Your task to perform on an android device: Go to settings Image 0: 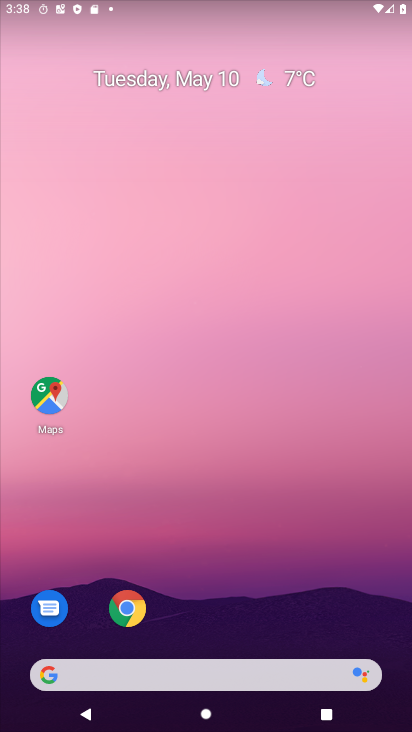
Step 0: drag from (294, 637) to (270, 34)
Your task to perform on an android device: Go to settings Image 1: 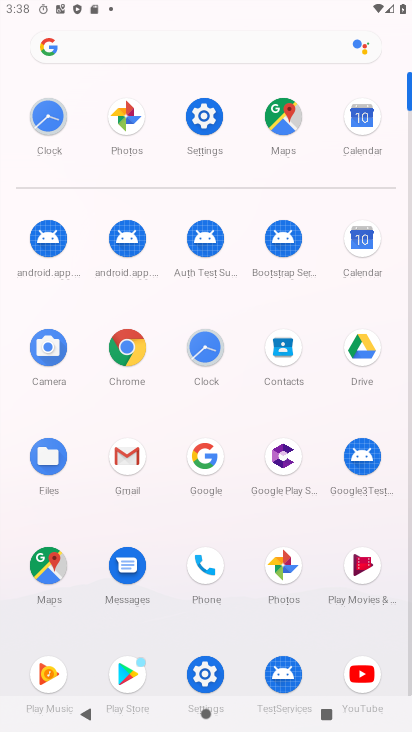
Step 1: click (205, 129)
Your task to perform on an android device: Go to settings Image 2: 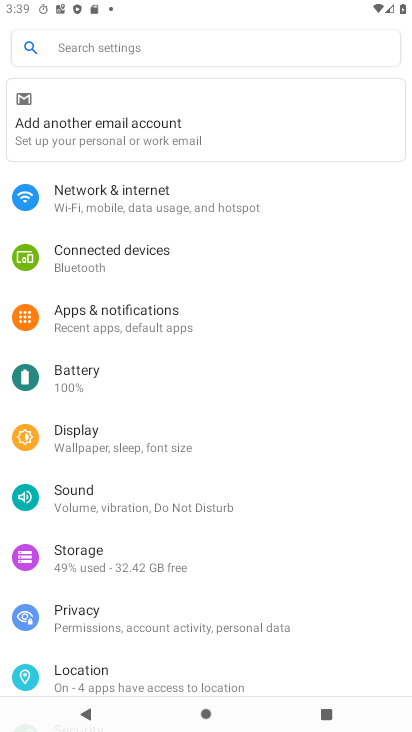
Step 2: task complete